Your task to perform on an android device: toggle wifi Image 0: 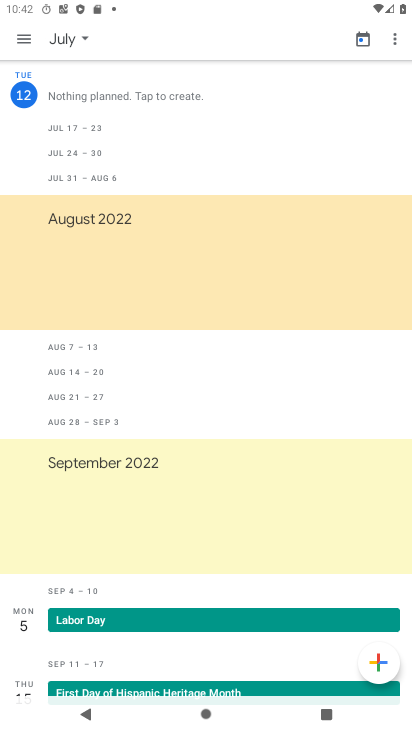
Step 0: press home button
Your task to perform on an android device: toggle wifi Image 1: 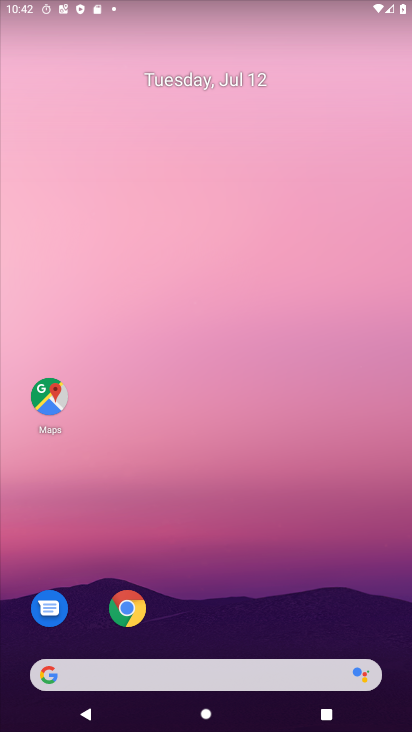
Step 1: drag from (226, 592) to (305, 21)
Your task to perform on an android device: toggle wifi Image 2: 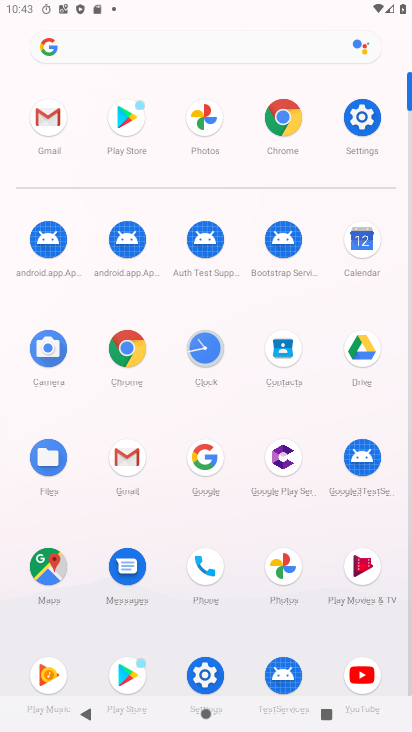
Step 2: click (364, 123)
Your task to perform on an android device: toggle wifi Image 3: 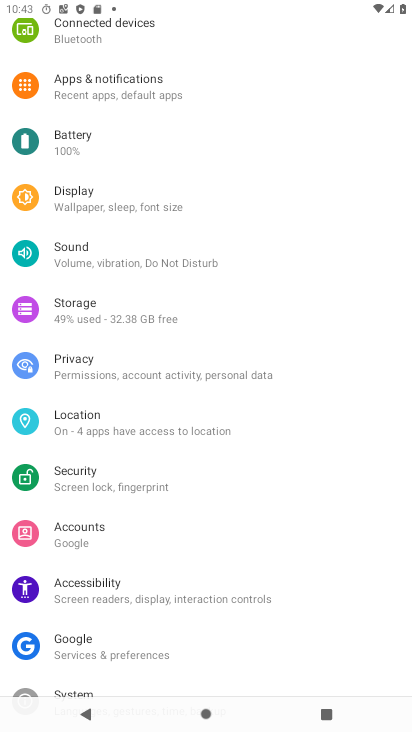
Step 3: drag from (141, 106) to (147, 204)
Your task to perform on an android device: toggle wifi Image 4: 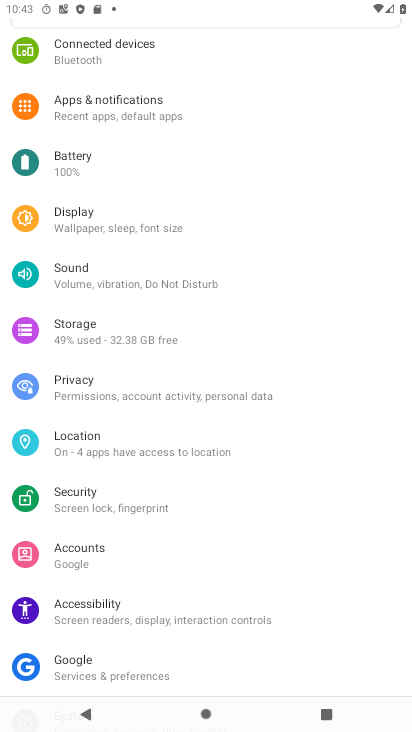
Step 4: drag from (217, 53) to (246, 262)
Your task to perform on an android device: toggle wifi Image 5: 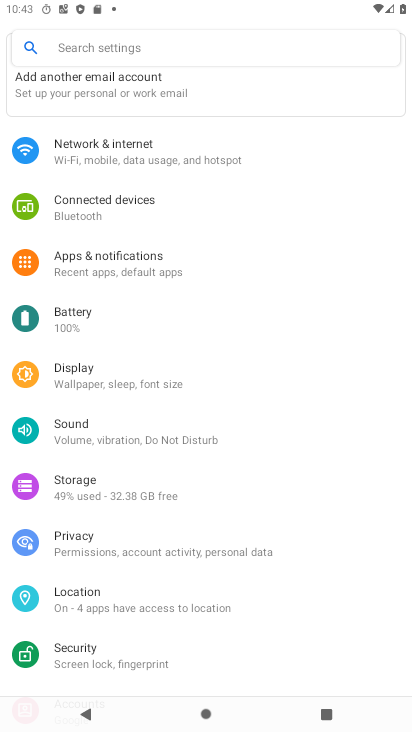
Step 5: click (177, 160)
Your task to perform on an android device: toggle wifi Image 6: 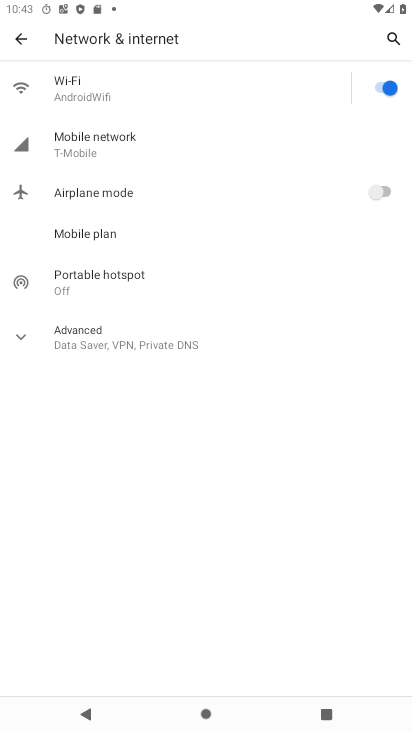
Step 6: click (382, 90)
Your task to perform on an android device: toggle wifi Image 7: 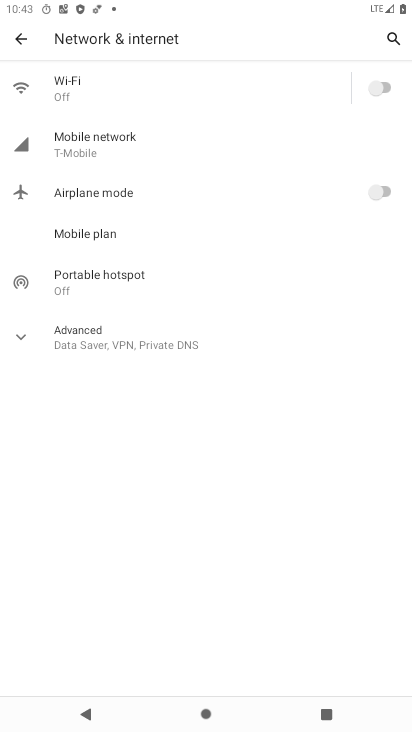
Step 7: task complete